Your task to perform on an android device: Open Google Chrome Image 0: 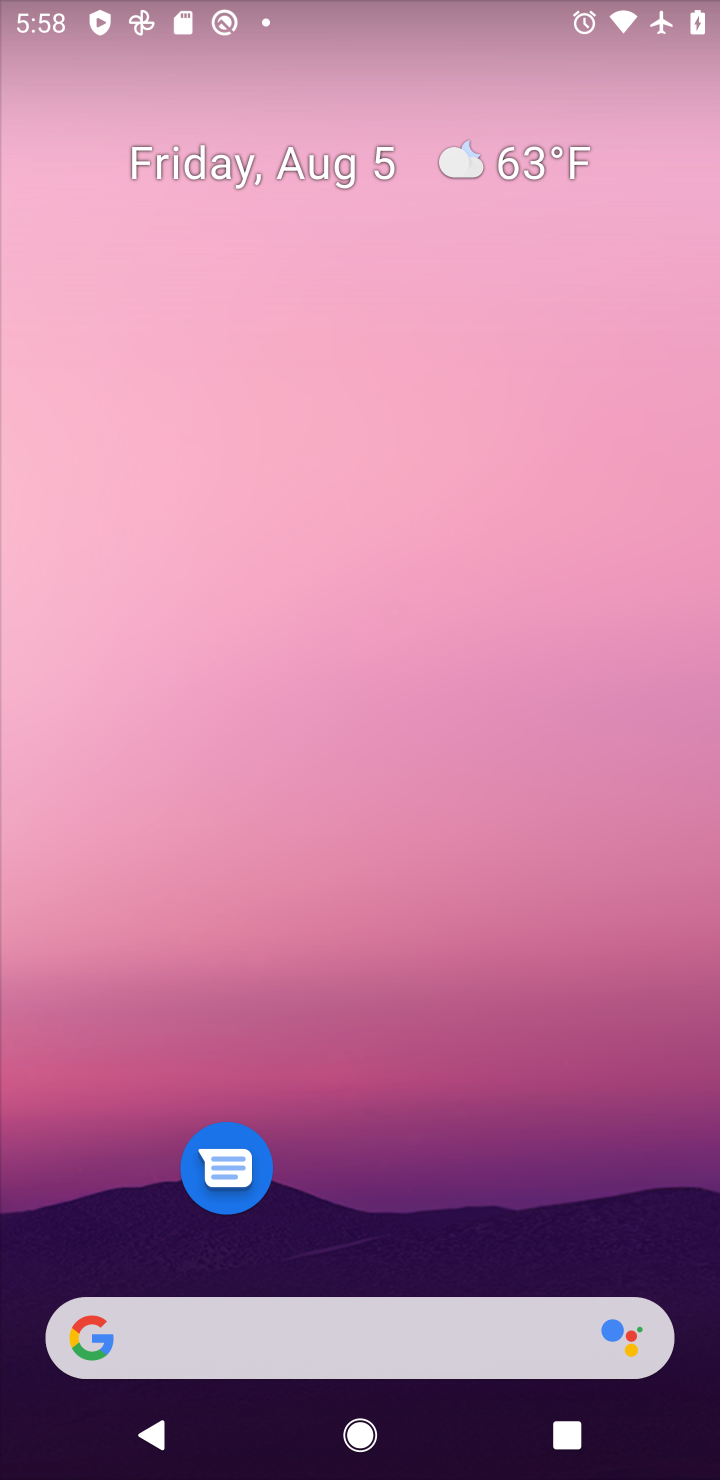
Step 0: drag from (452, 1211) to (560, 190)
Your task to perform on an android device: Open Google Chrome Image 1: 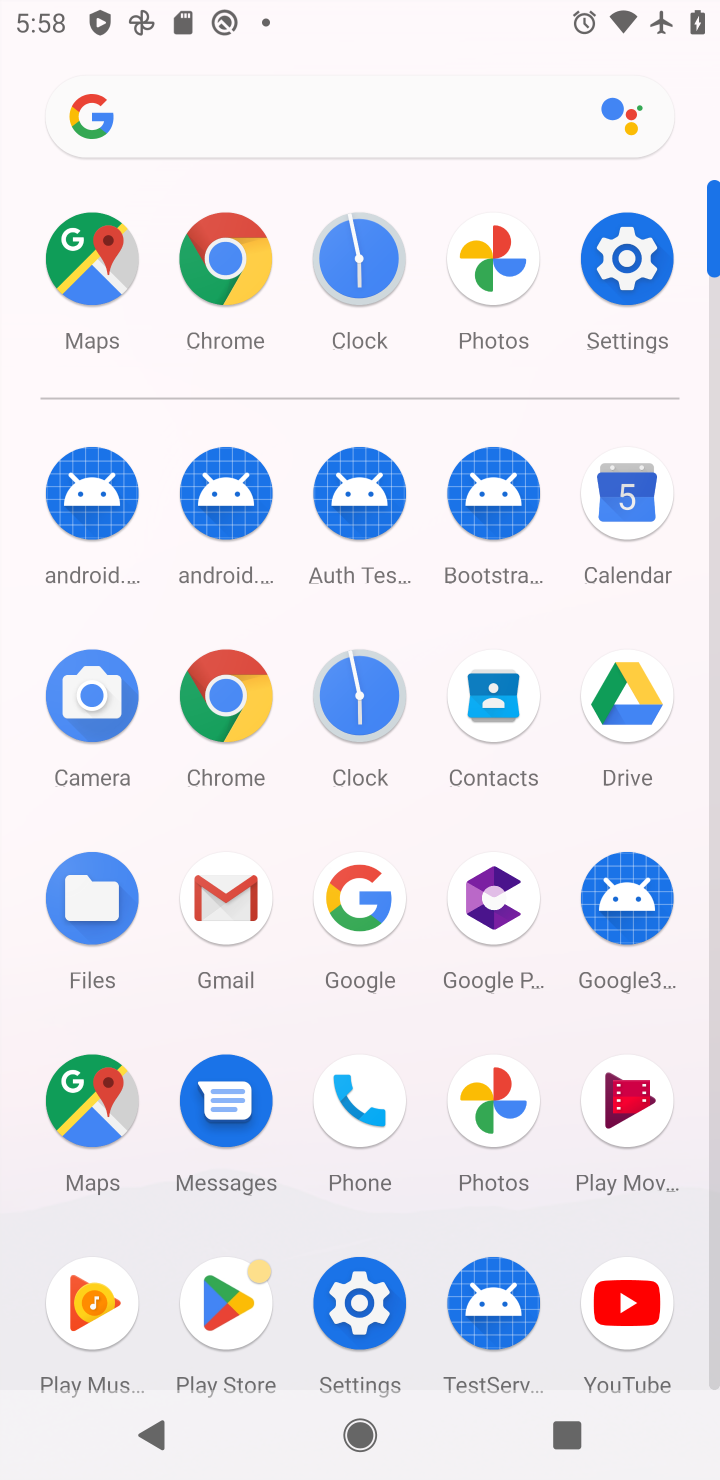
Step 1: click (230, 698)
Your task to perform on an android device: Open Google Chrome Image 2: 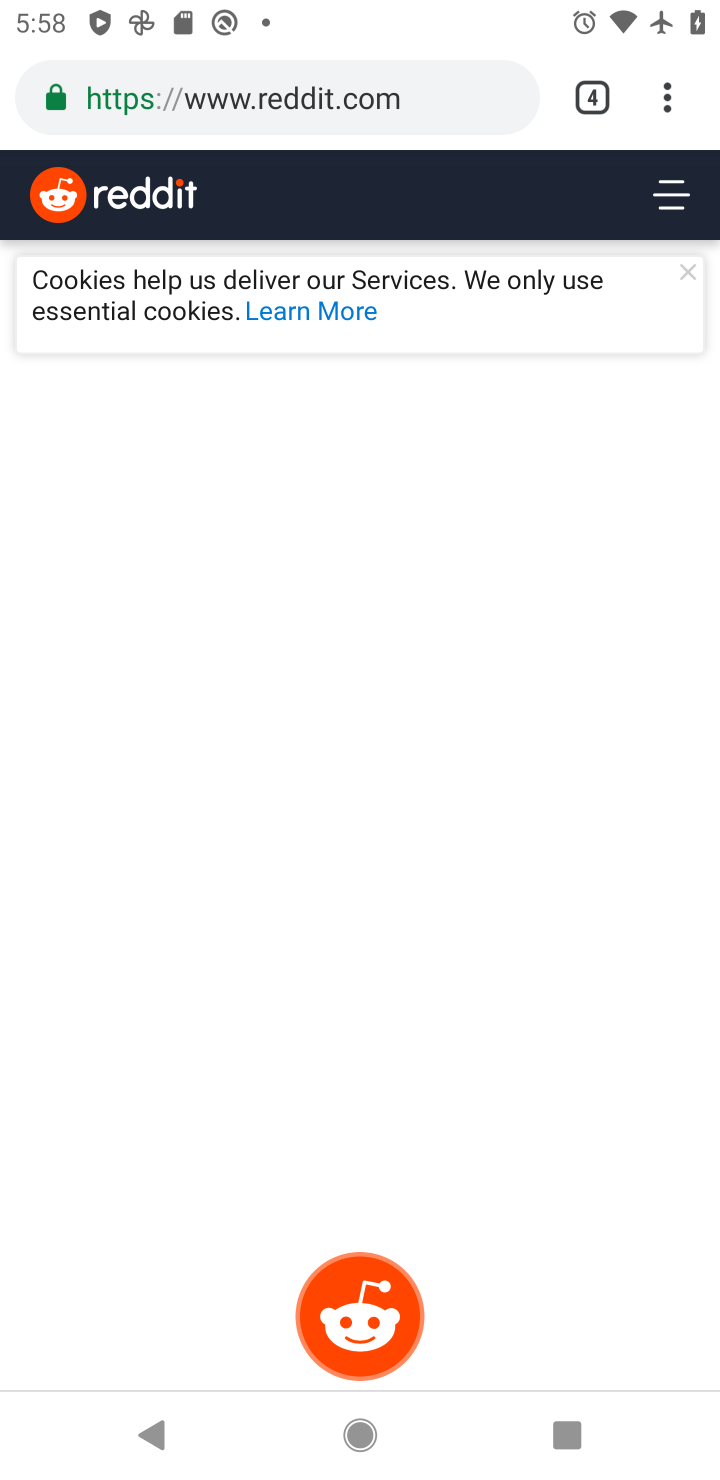
Step 2: click (601, 98)
Your task to perform on an android device: Open Google Chrome Image 3: 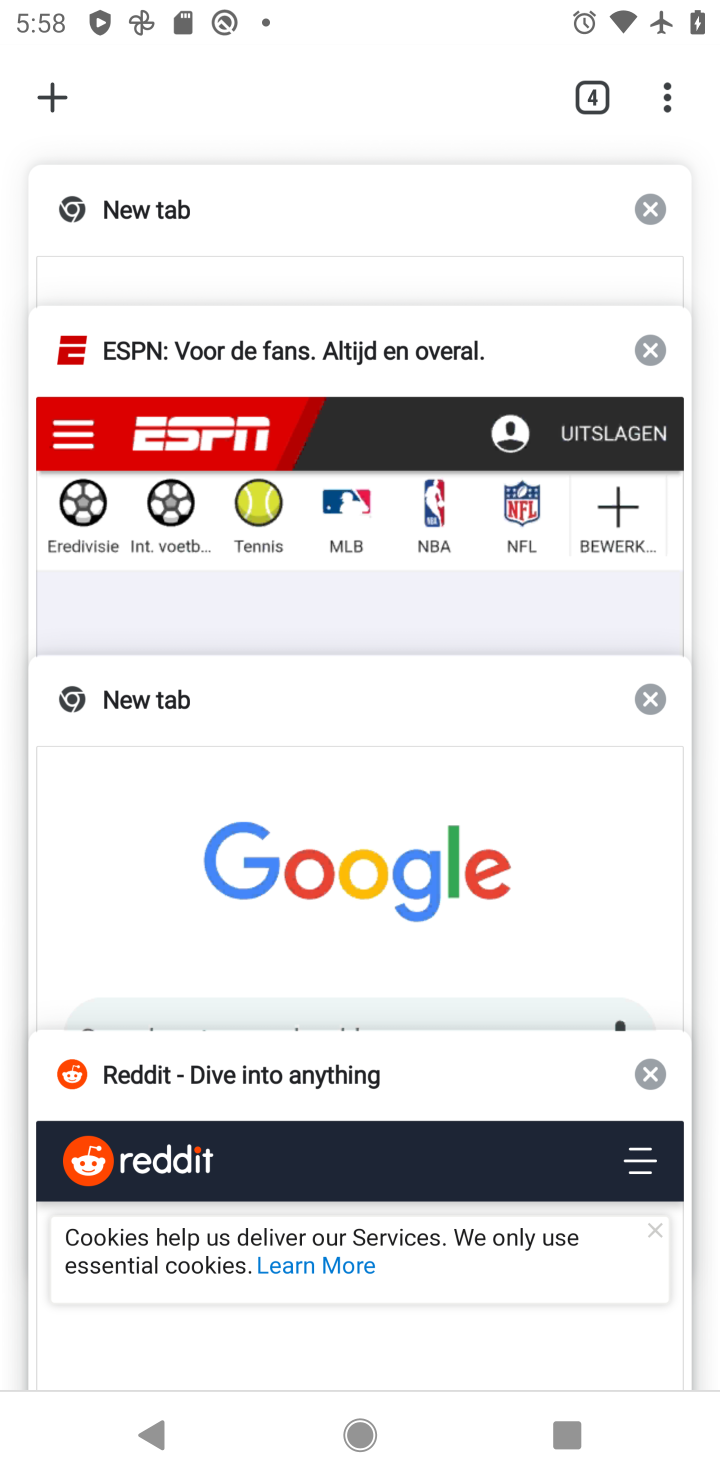
Step 3: click (49, 98)
Your task to perform on an android device: Open Google Chrome Image 4: 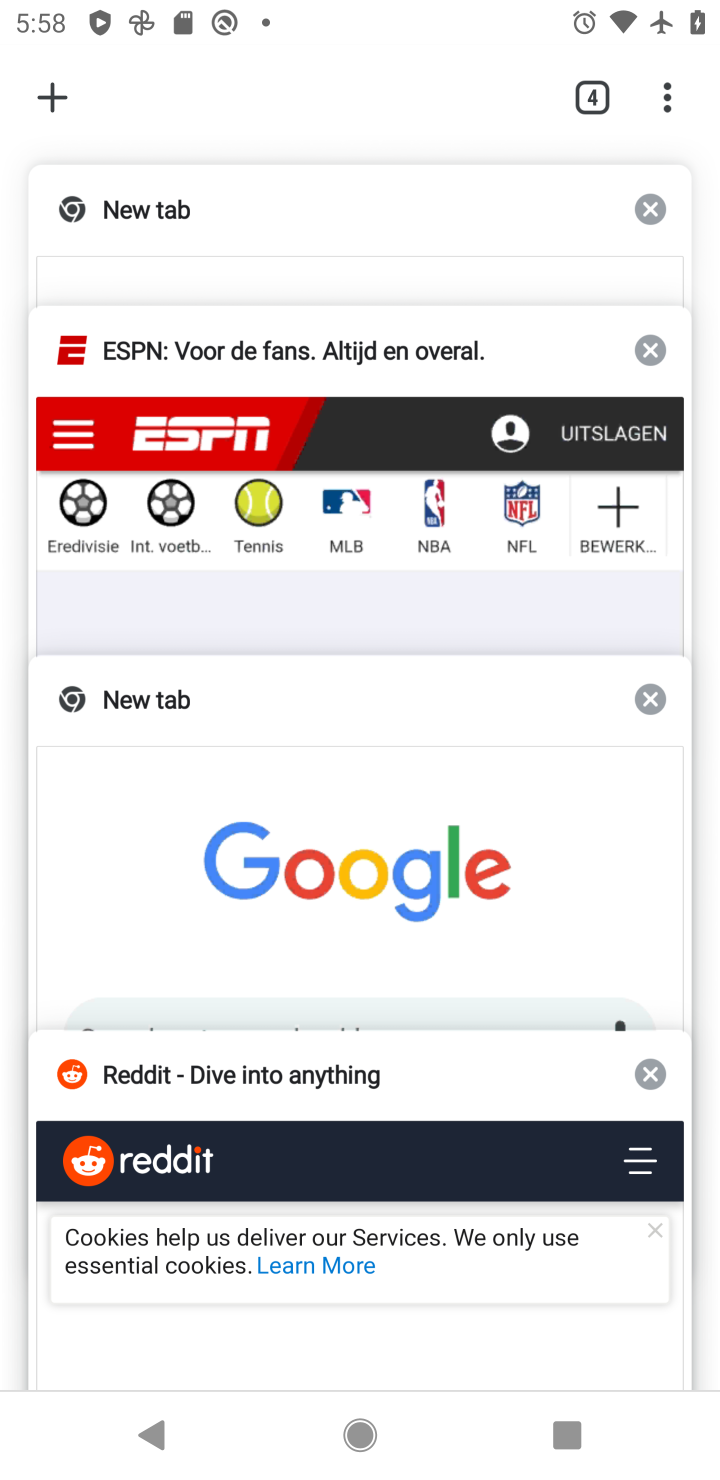
Step 4: click (357, 890)
Your task to perform on an android device: Open Google Chrome Image 5: 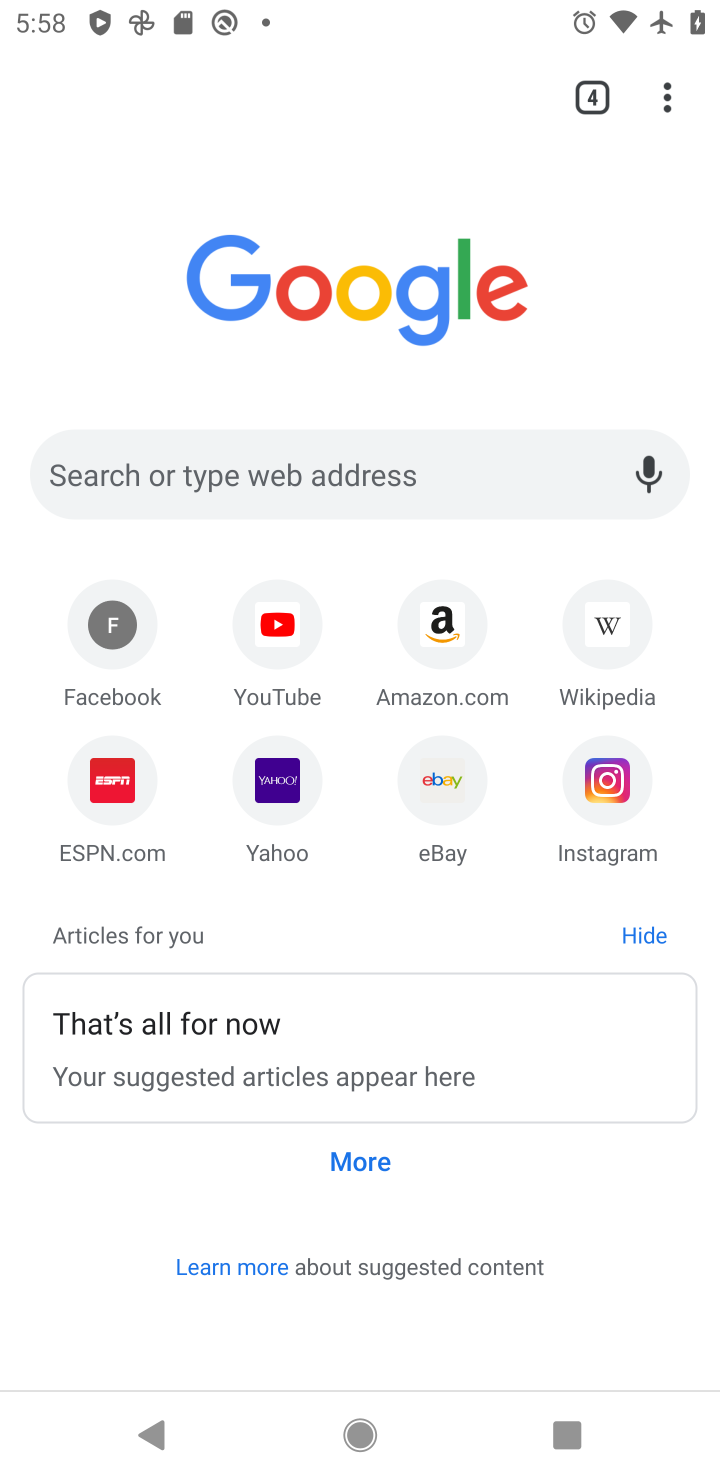
Step 5: task complete